Your task to perform on an android device: allow cookies in the chrome app Image 0: 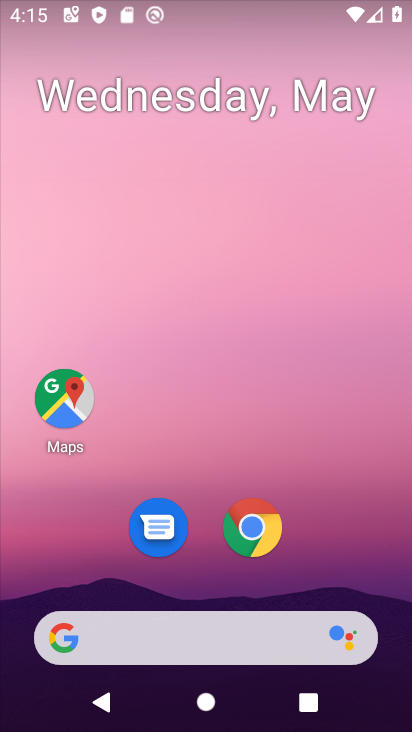
Step 0: press home button
Your task to perform on an android device: allow cookies in the chrome app Image 1: 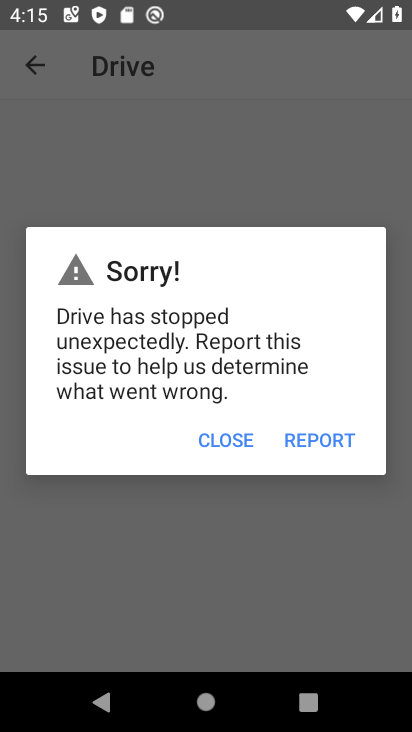
Step 1: click (389, 1)
Your task to perform on an android device: allow cookies in the chrome app Image 2: 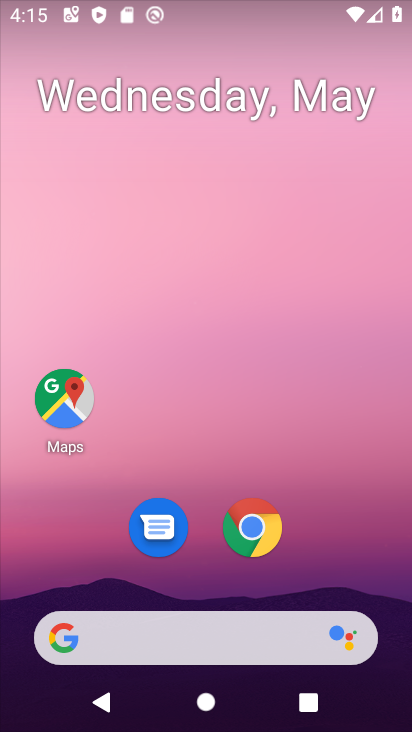
Step 2: press back button
Your task to perform on an android device: allow cookies in the chrome app Image 3: 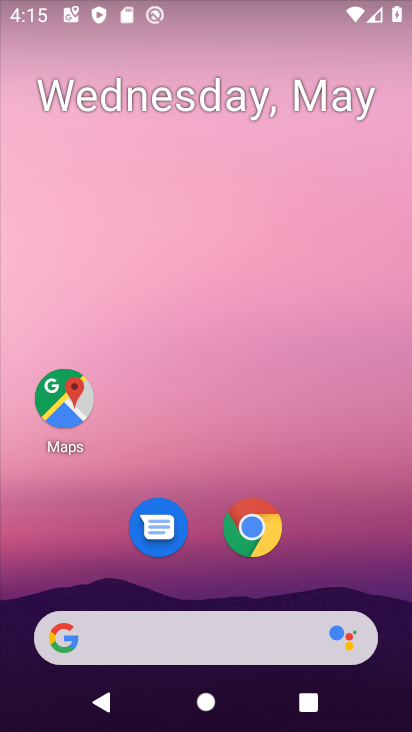
Step 3: press home button
Your task to perform on an android device: allow cookies in the chrome app Image 4: 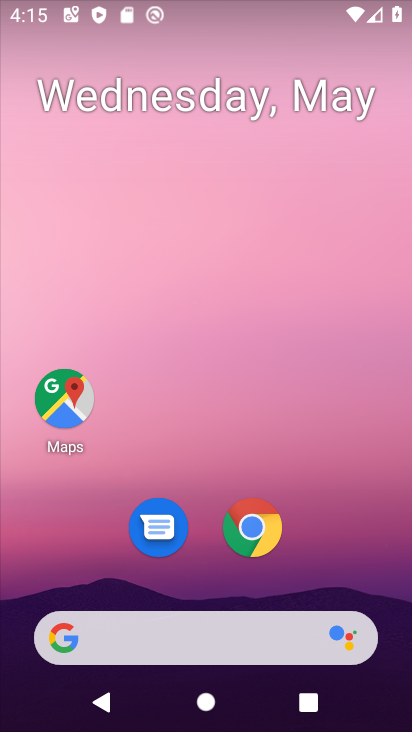
Step 4: click (250, 508)
Your task to perform on an android device: allow cookies in the chrome app Image 5: 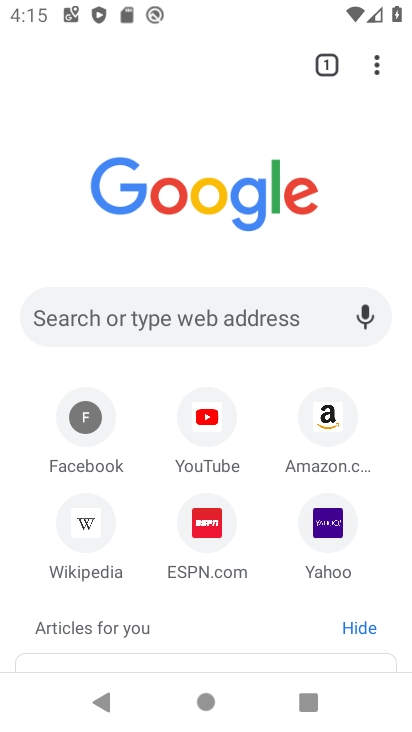
Step 5: drag from (383, 68) to (212, 541)
Your task to perform on an android device: allow cookies in the chrome app Image 6: 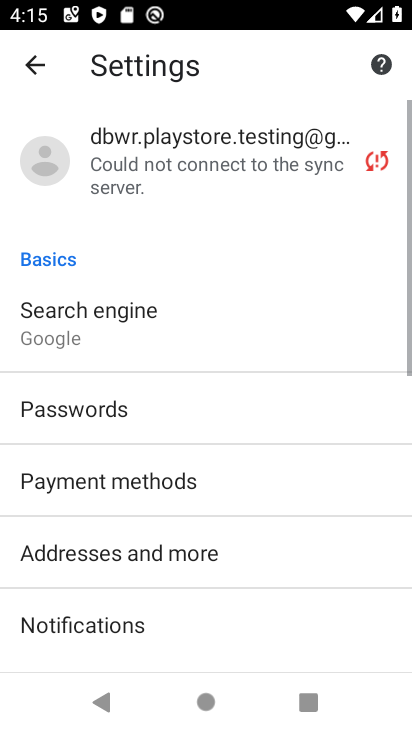
Step 6: drag from (160, 563) to (127, 152)
Your task to perform on an android device: allow cookies in the chrome app Image 7: 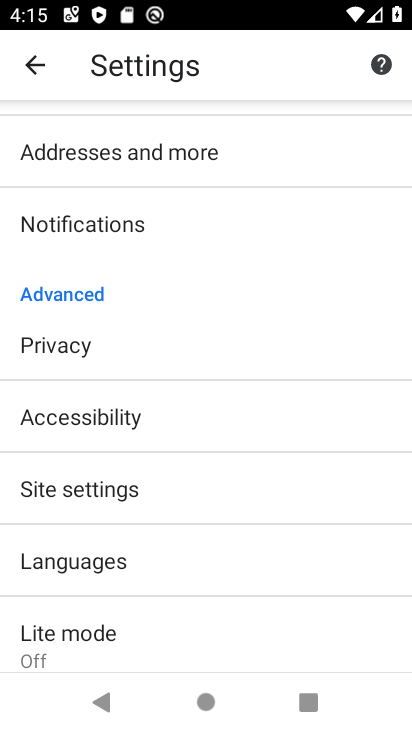
Step 7: click (151, 486)
Your task to perform on an android device: allow cookies in the chrome app Image 8: 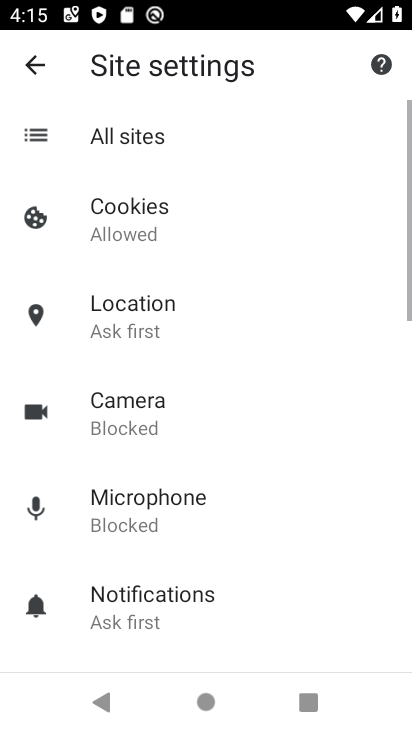
Step 8: click (128, 233)
Your task to perform on an android device: allow cookies in the chrome app Image 9: 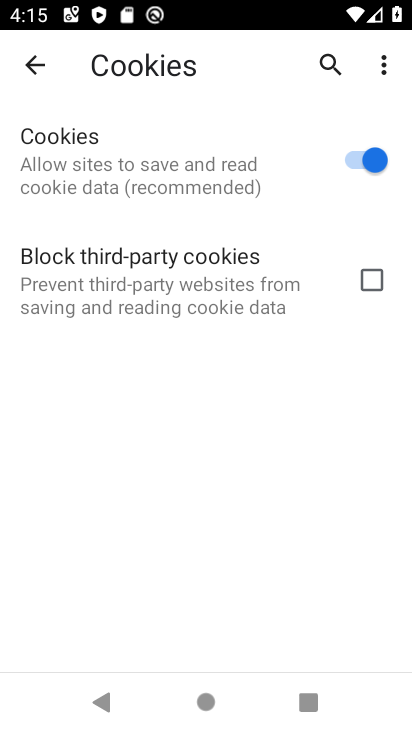
Step 9: task complete